Your task to perform on an android device: turn off javascript in the chrome app Image 0: 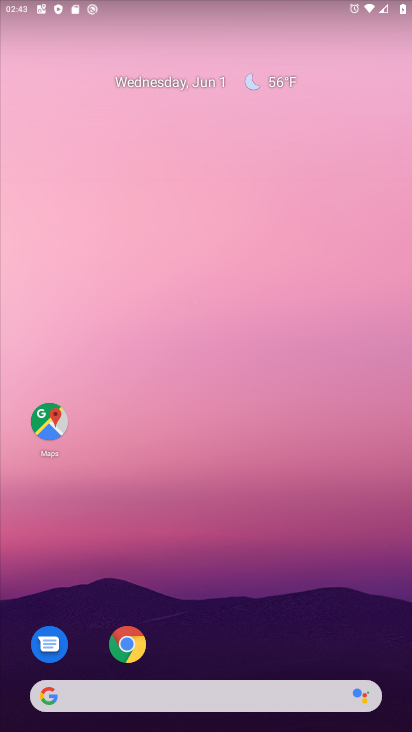
Step 0: drag from (193, 667) to (174, 241)
Your task to perform on an android device: turn off javascript in the chrome app Image 1: 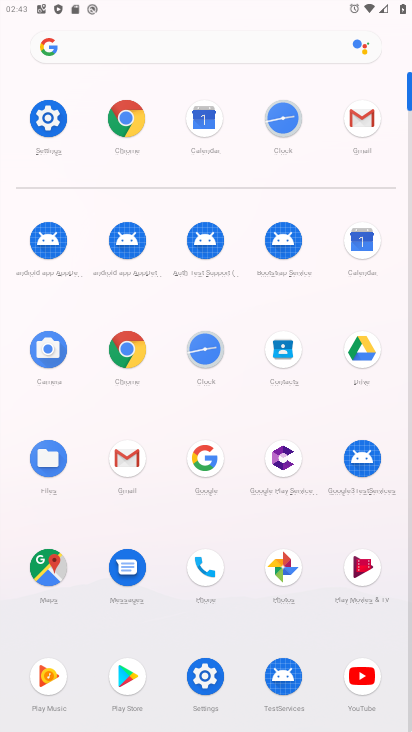
Step 1: click (133, 337)
Your task to perform on an android device: turn off javascript in the chrome app Image 2: 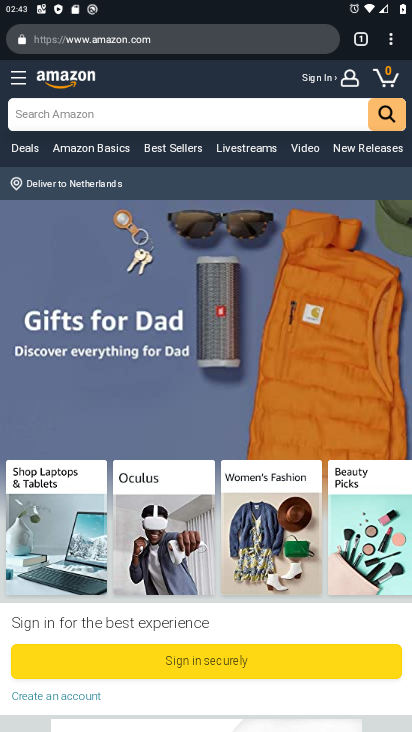
Step 2: click (396, 37)
Your task to perform on an android device: turn off javascript in the chrome app Image 3: 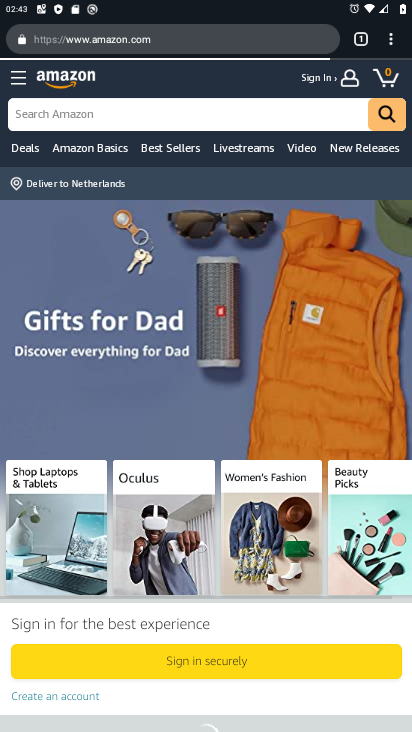
Step 3: click (394, 29)
Your task to perform on an android device: turn off javascript in the chrome app Image 4: 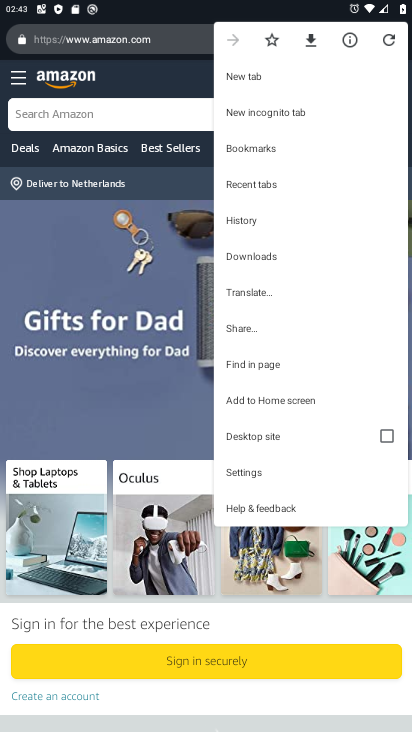
Step 4: click (259, 466)
Your task to perform on an android device: turn off javascript in the chrome app Image 5: 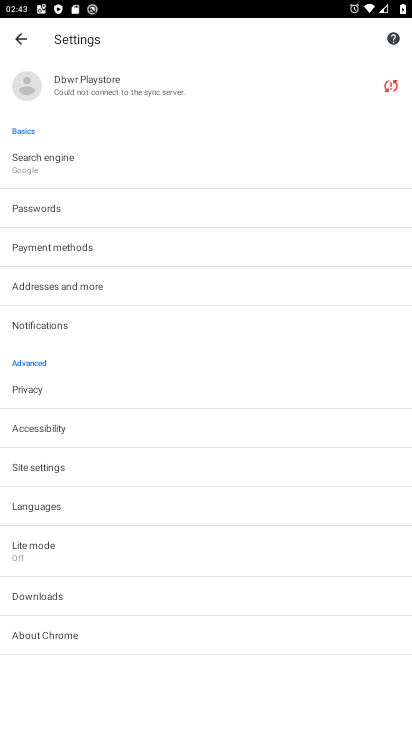
Step 5: click (27, 472)
Your task to perform on an android device: turn off javascript in the chrome app Image 6: 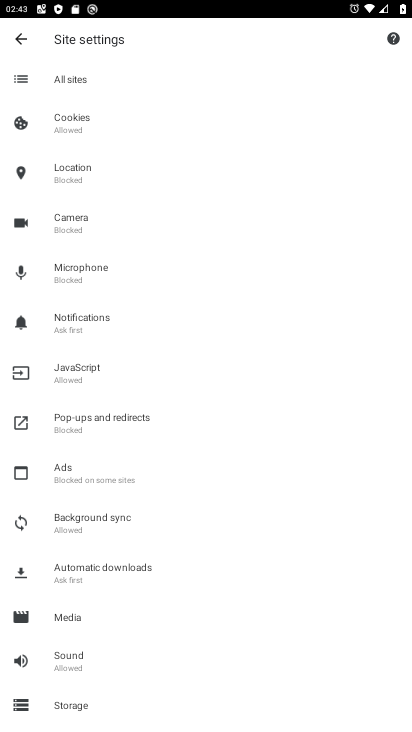
Step 6: click (84, 356)
Your task to perform on an android device: turn off javascript in the chrome app Image 7: 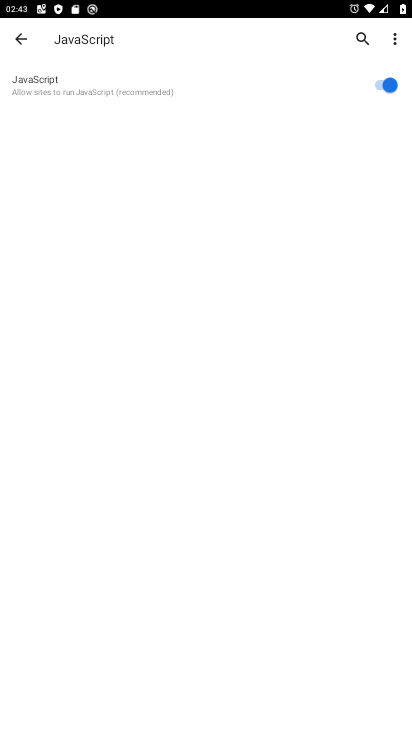
Step 7: task complete